Your task to perform on an android device: Open Chrome and go to settings Image 0: 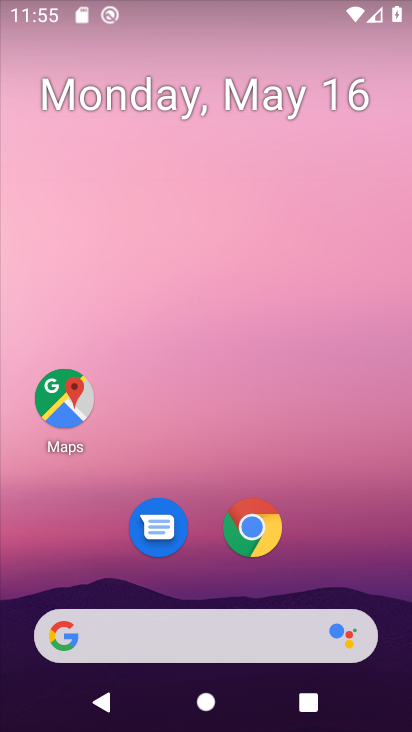
Step 0: click (266, 539)
Your task to perform on an android device: Open Chrome and go to settings Image 1: 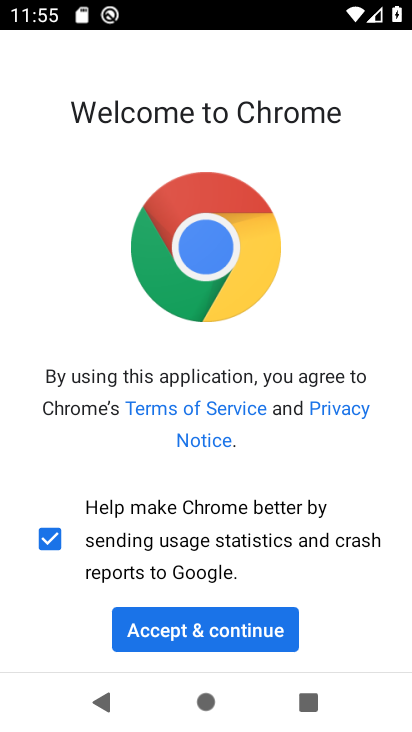
Step 1: click (237, 634)
Your task to perform on an android device: Open Chrome and go to settings Image 2: 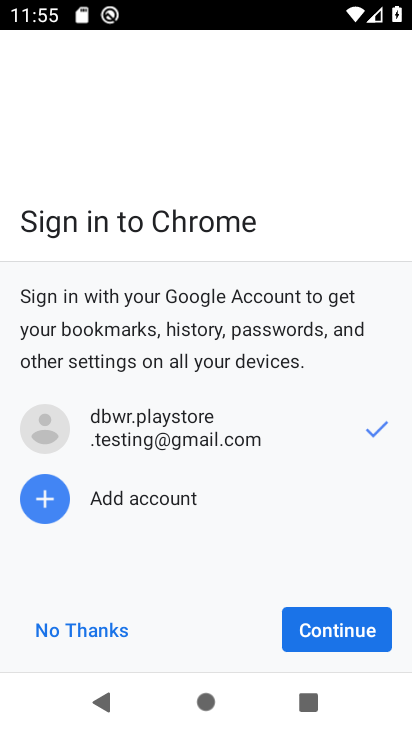
Step 2: click (312, 626)
Your task to perform on an android device: Open Chrome and go to settings Image 3: 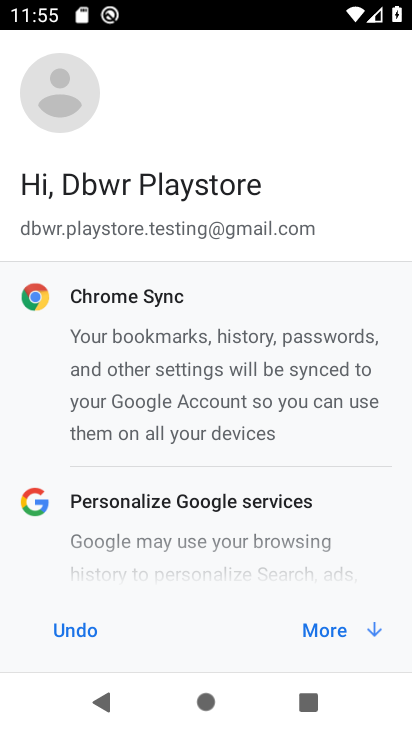
Step 3: click (324, 637)
Your task to perform on an android device: Open Chrome and go to settings Image 4: 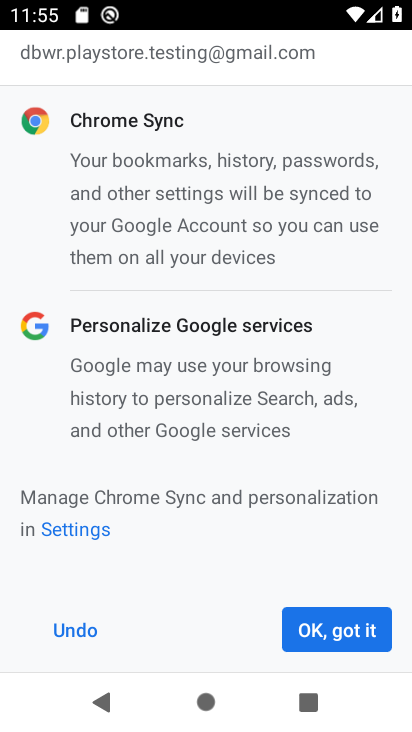
Step 4: click (327, 631)
Your task to perform on an android device: Open Chrome and go to settings Image 5: 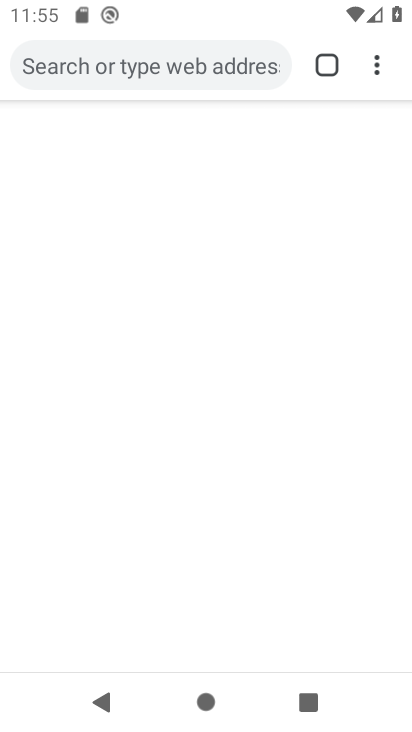
Step 5: click (370, 69)
Your task to perform on an android device: Open Chrome and go to settings Image 6: 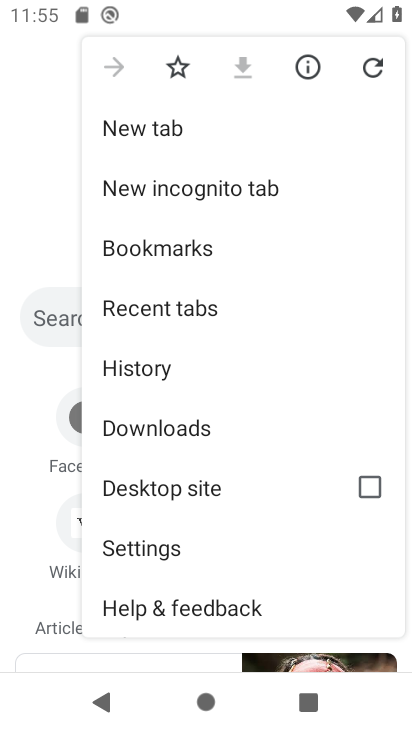
Step 6: click (220, 547)
Your task to perform on an android device: Open Chrome and go to settings Image 7: 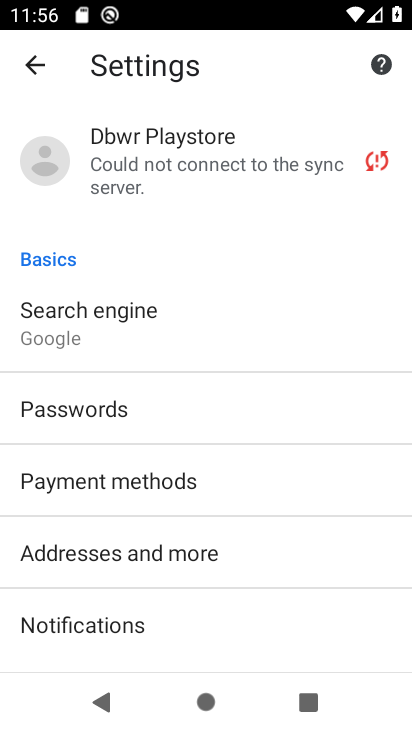
Step 7: task complete